Your task to perform on an android device: Open Chrome and go to settings Image 0: 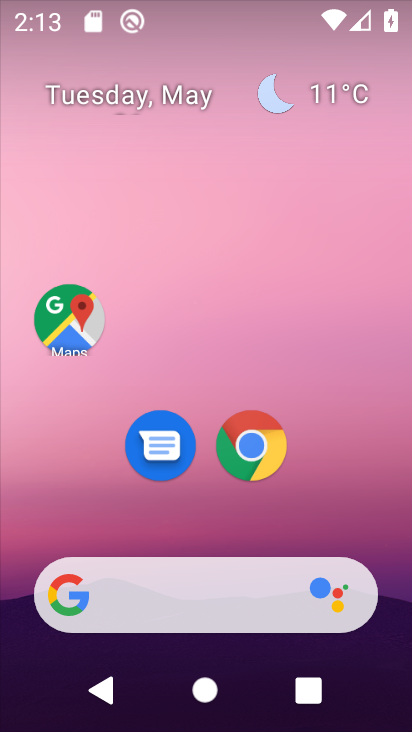
Step 0: click (260, 432)
Your task to perform on an android device: Open Chrome and go to settings Image 1: 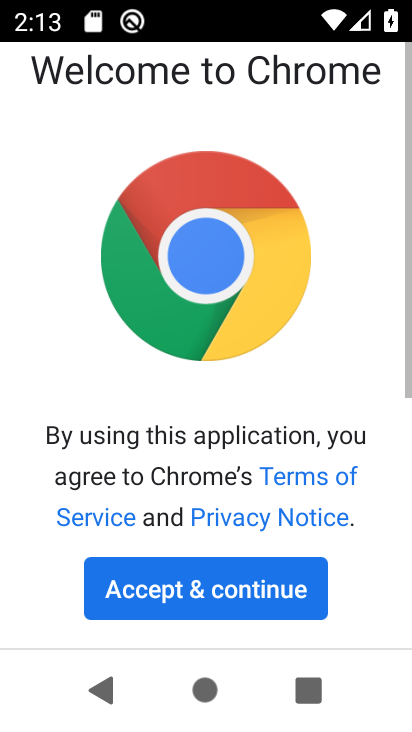
Step 1: click (239, 578)
Your task to perform on an android device: Open Chrome and go to settings Image 2: 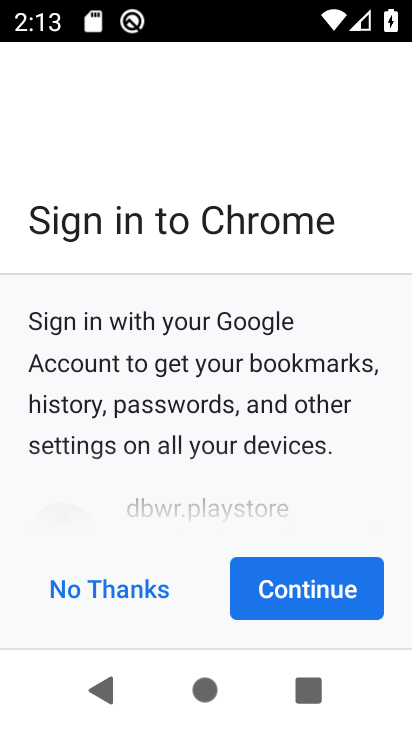
Step 2: click (244, 580)
Your task to perform on an android device: Open Chrome and go to settings Image 3: 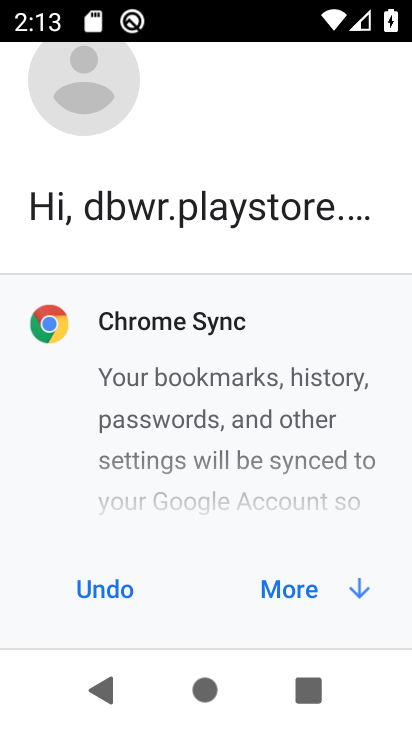
Step 3: click (252, 583)
Your task to perform on an android device: Open Chrome and go to settings Image 4: 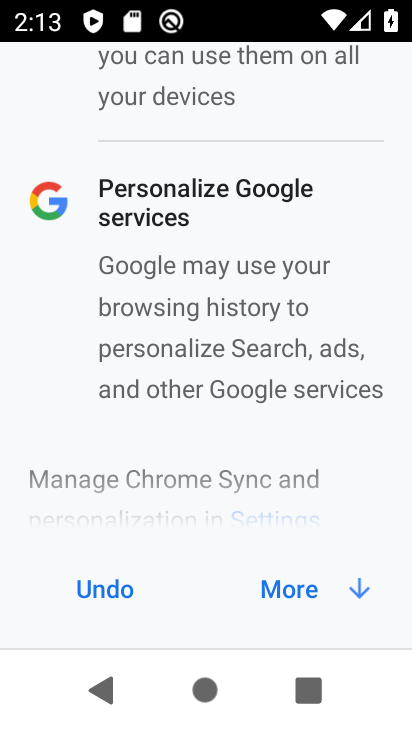
Step 4: click (285, 590)
Your task to perform on an android device: Open Chrome and go to settings Image 5: 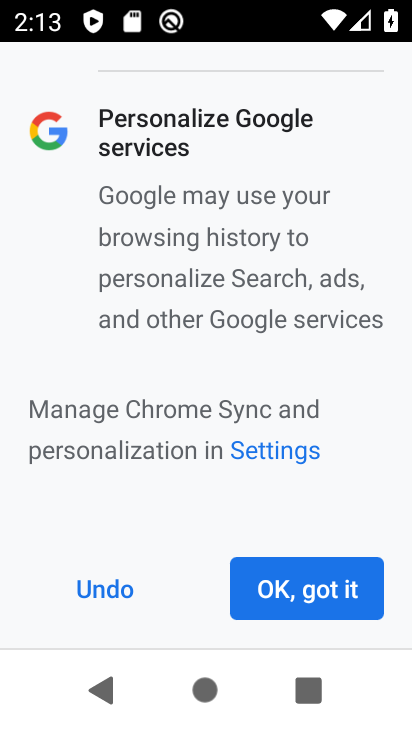
Step 5: click (285, 590)
Your task to perform on an android device: Open Chrome and go to settings Image 6: 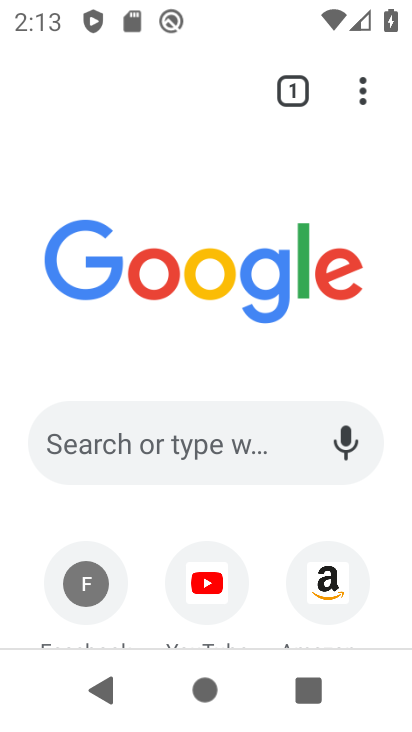
Step 6: task complete